Your task to perform on an android device: open app "Pinterest" (install if not already installed), go to login, and select forgot password Image 0: 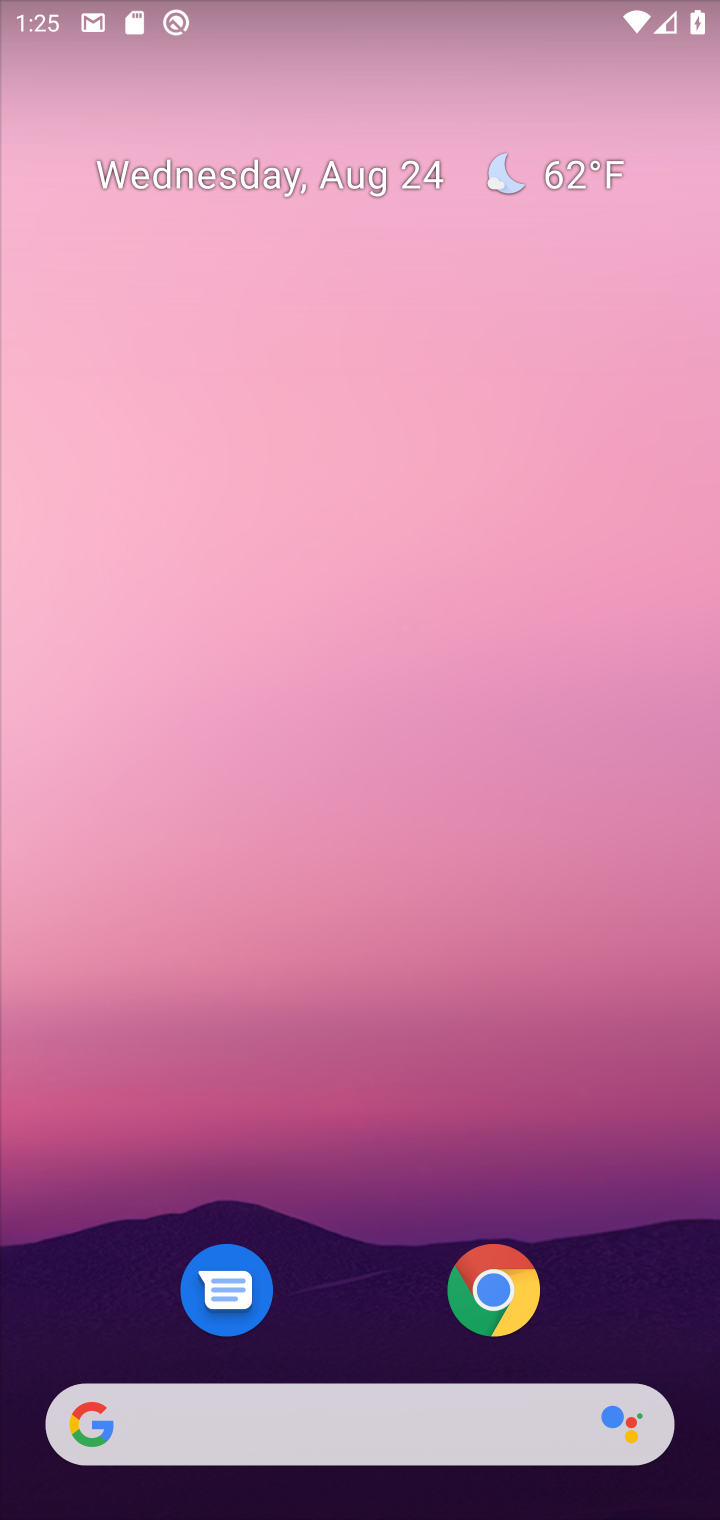
Step 0: drag from (312, 1298) to (365, 104)
Your task to perform on an android device: open app "Pinterest" (install if not already installed), go to login, and select forgot password Image 1: 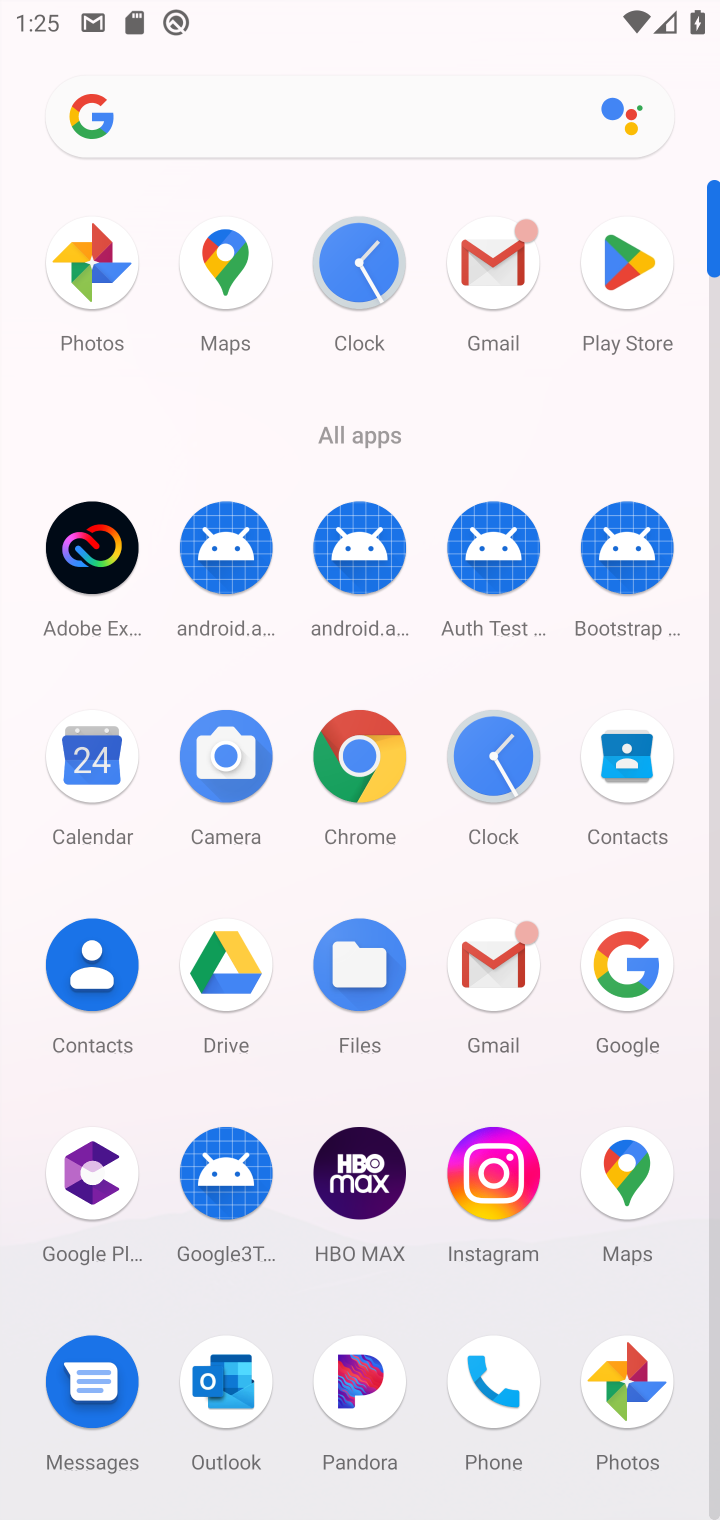
Step 1: click (620, 261)
Your task to perform on an android device: open app "Pinterest" (install if not already installed), go to login, and select forgot password Image 2: 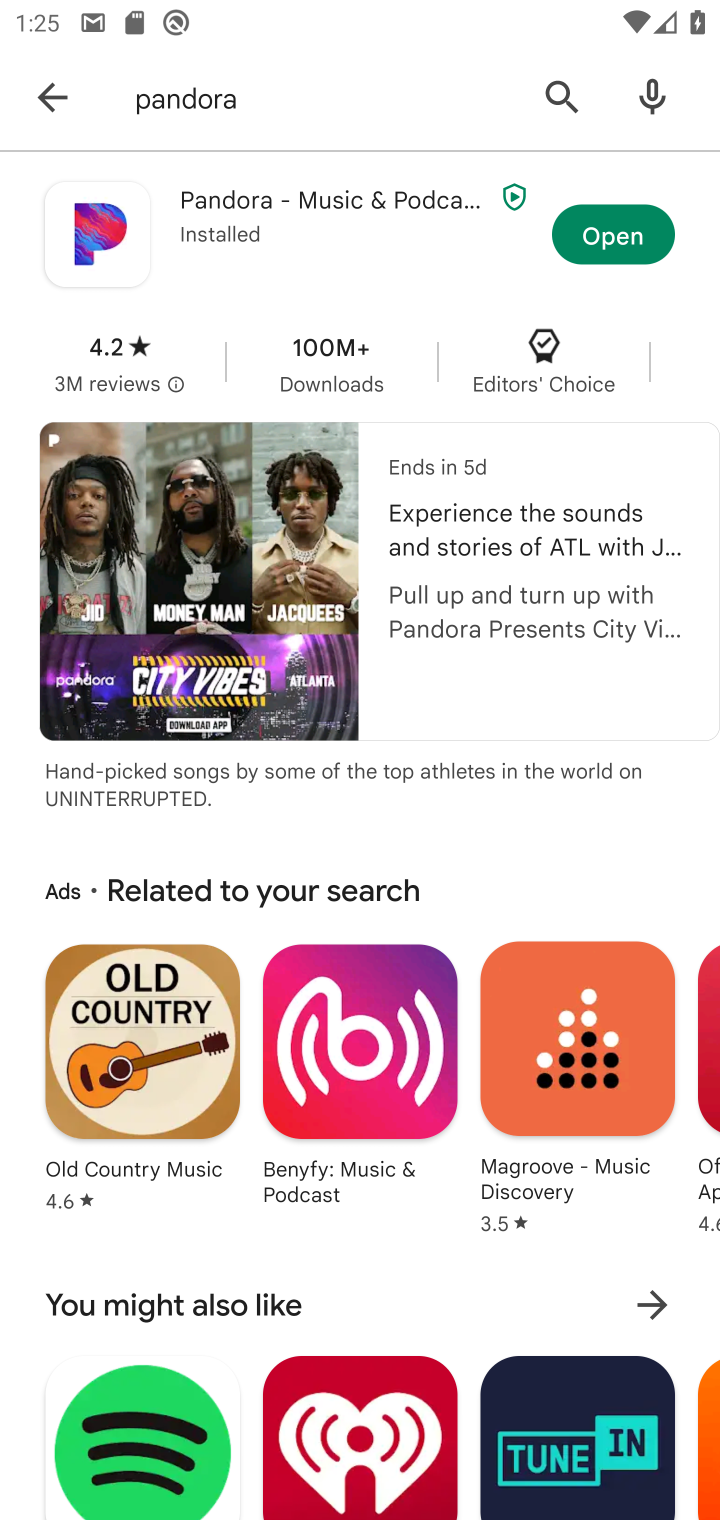
Step 2: click (43, 89)
Your task to perform on an android device: open app "Pinterest" (install if not already installed), go to login, and select forgot password Image 3: 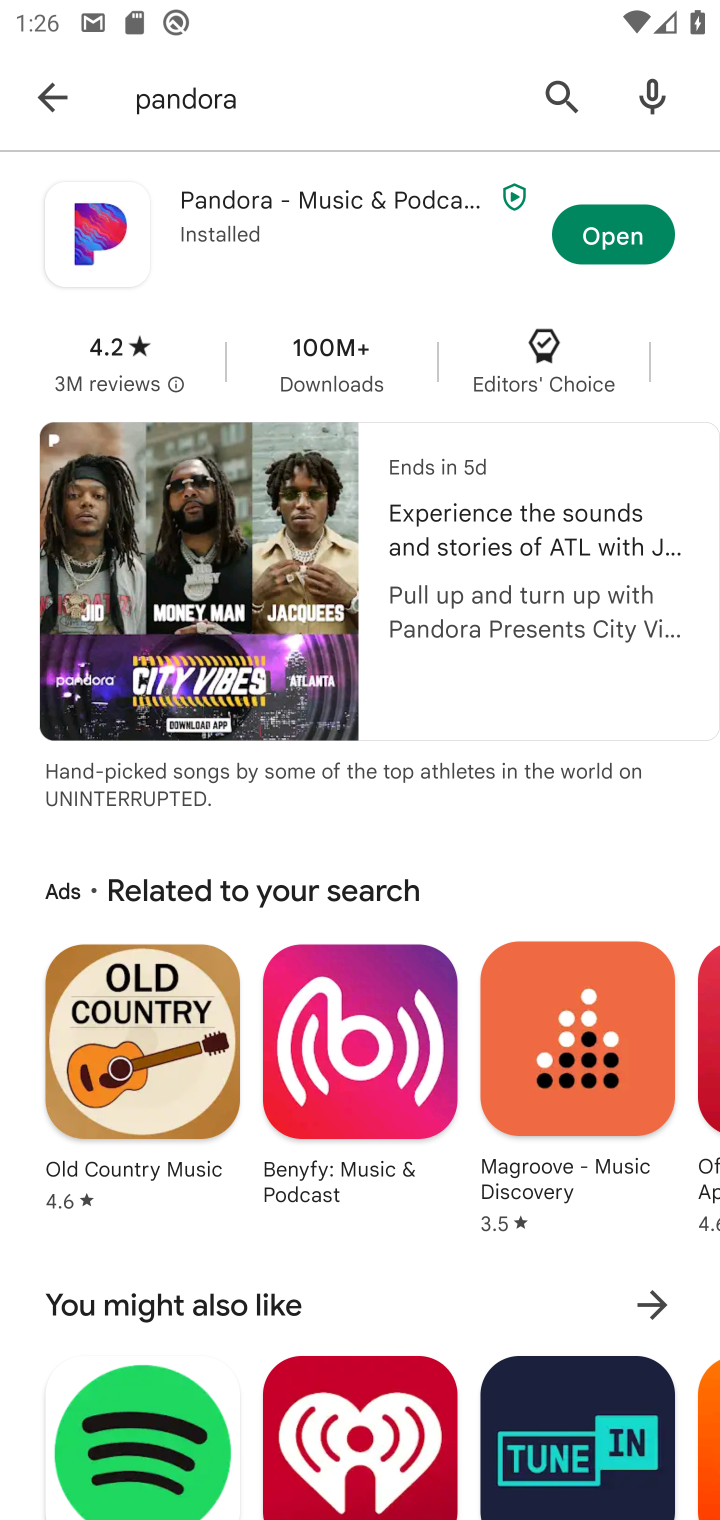
Step 3: click (45, 89)
Your task to perform on an android device: open app "Pinterest" (install if not already installed), go to login, and select forgot password Image 4: 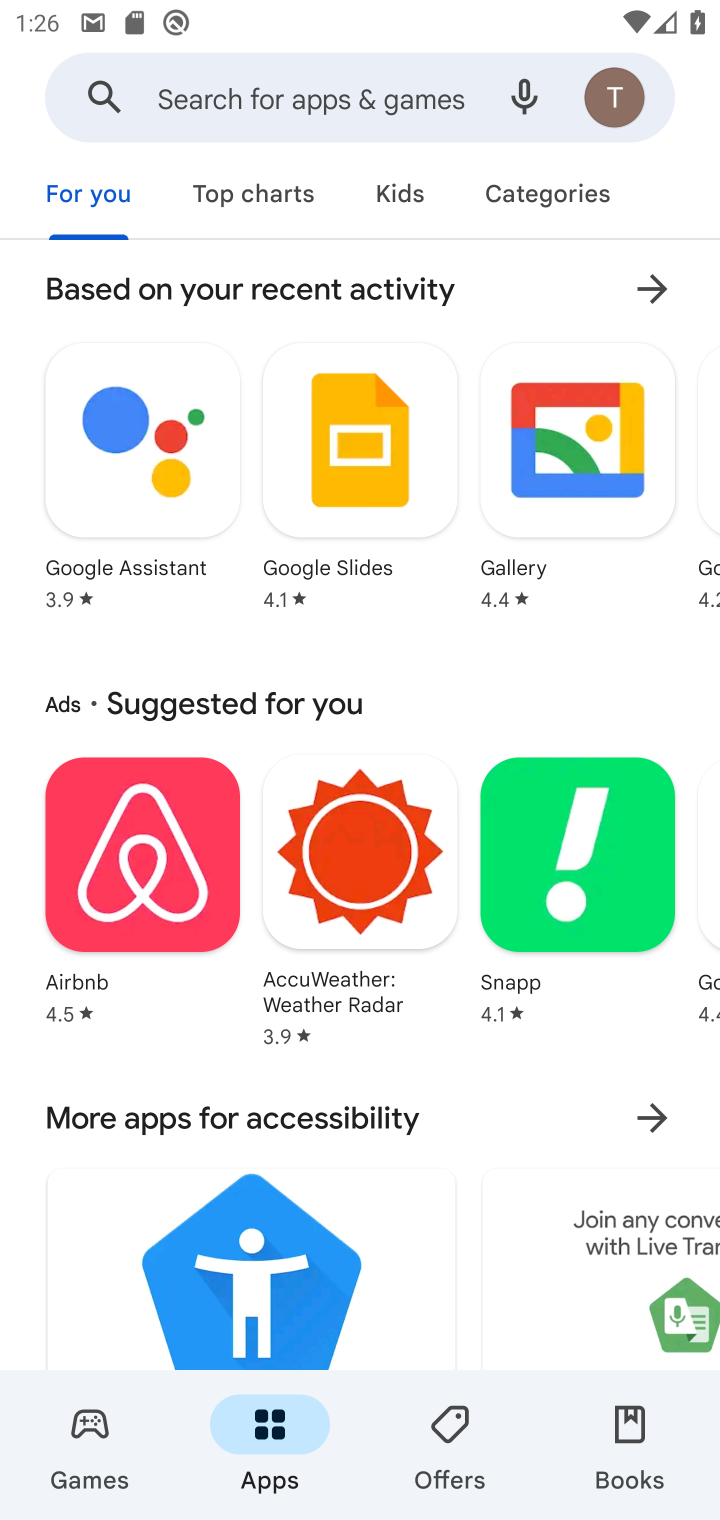
Step 4: click (217, 97)
Your task to perform on an android device: open app "Pinterest" (install if not already installed), go to login, and select forgot password Image 5: 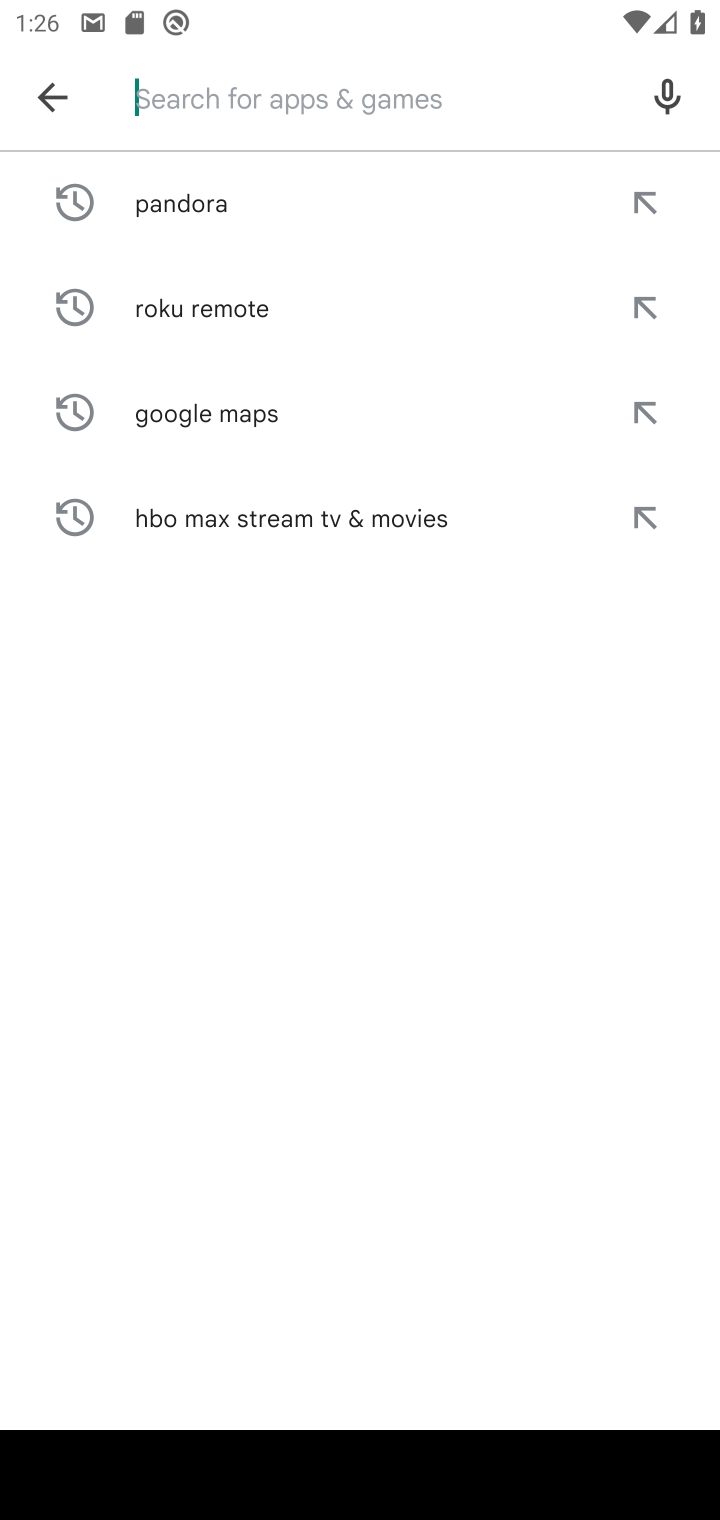
Step 5: type "Pinterest"
Your task to perform on an android device: open app "Pinterest" (install if not already installed), go to login, and select forgot password Image 6: 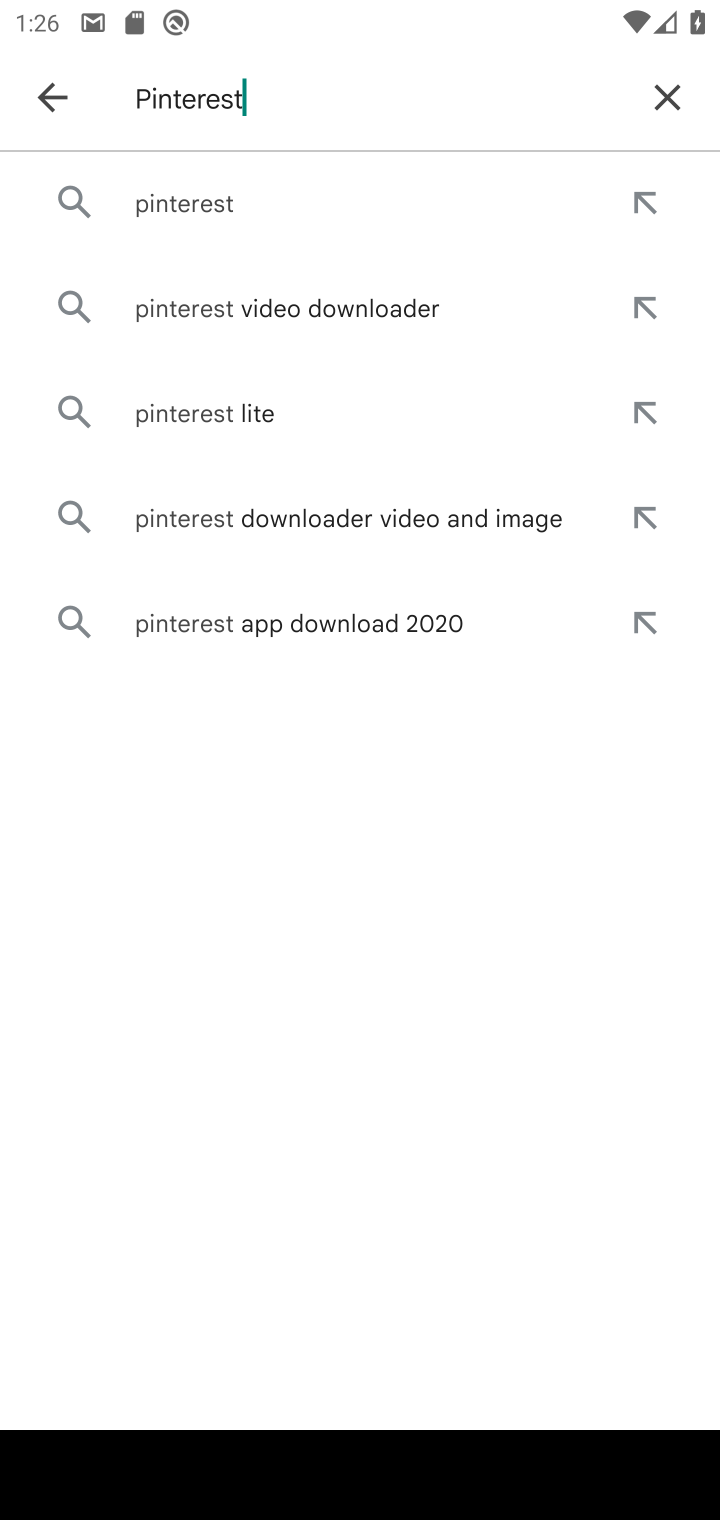
Step 6: click (167, 202)
Your task to perform on an android device: open app "Pinterest" (install if not already installed), go to login, and select forgot password Image 7: 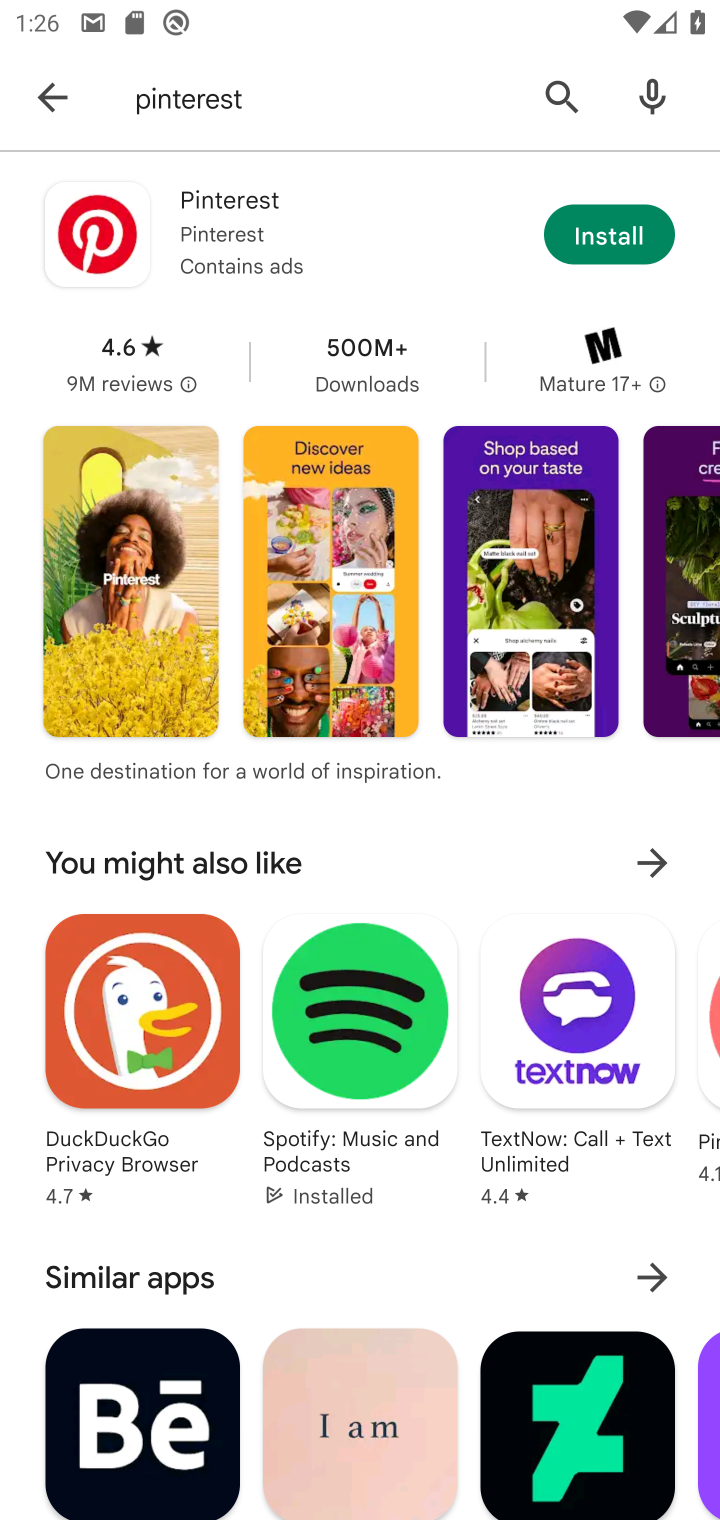
Step 7: click (627, 234)
Your task to perform on an android device: open app "Pinterest" (install if not already installed), go to login, and select forgot password Image 8: 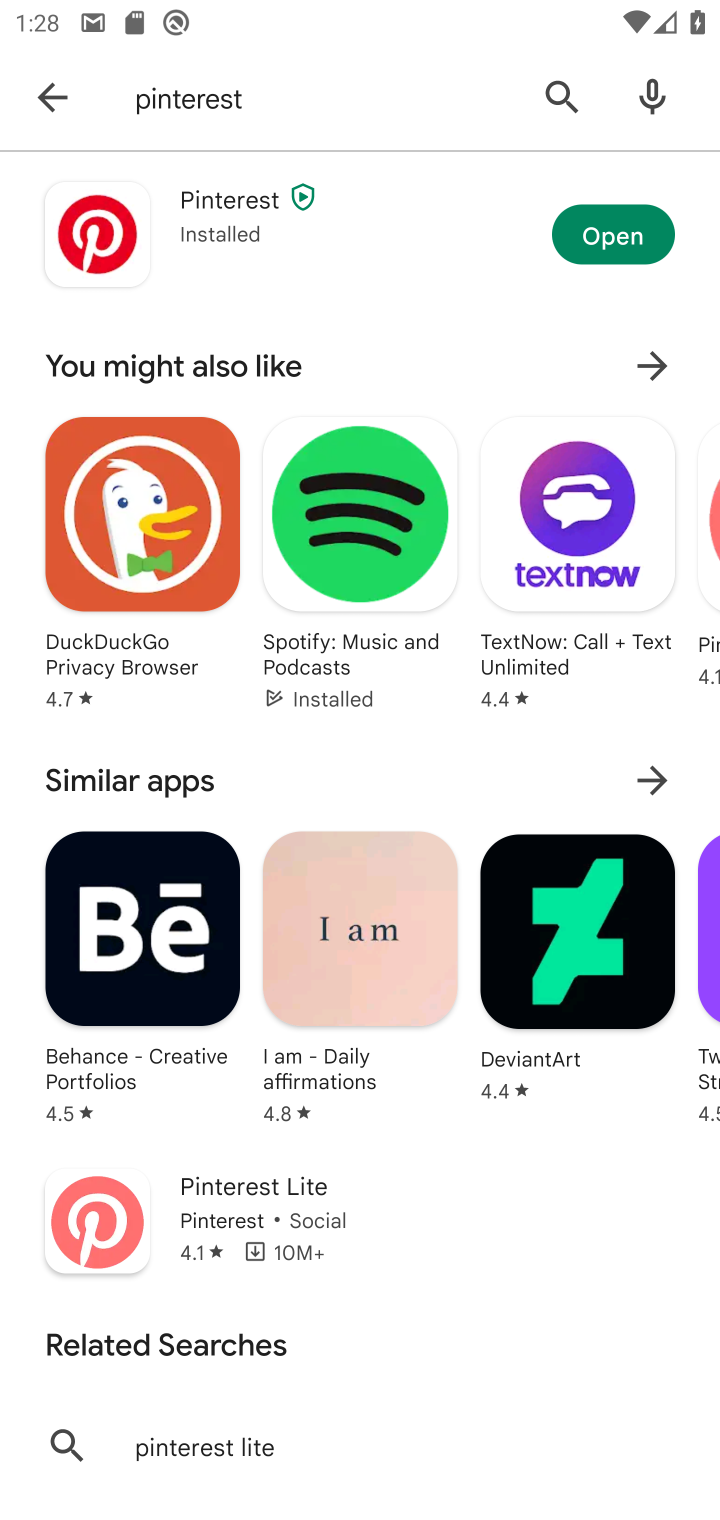
Step 8: click (601, 253)
Your task to perform on an android device: open app "Pinterest" (install if not already installed), go to login, and select forgot password Image 9: 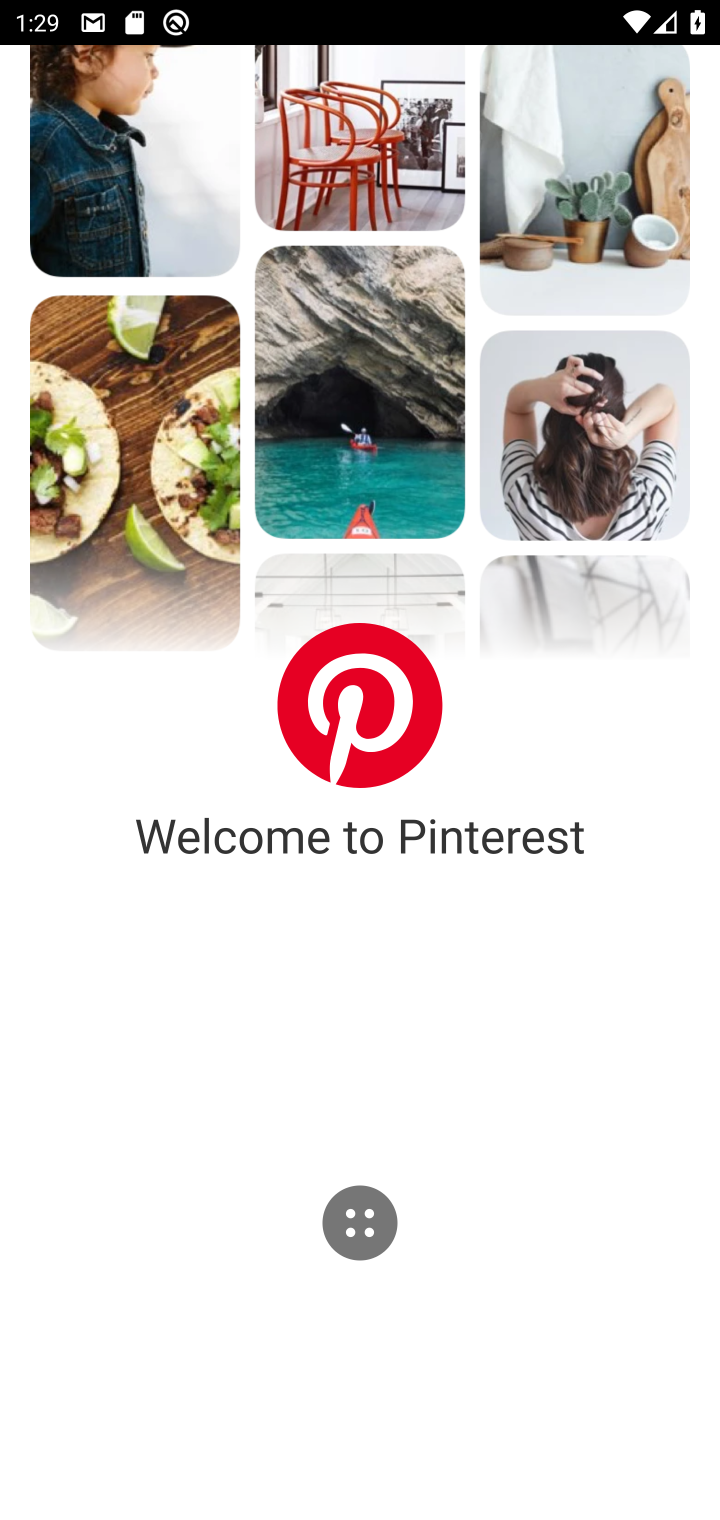
Step 9: task complete